Your task to perform on an android device: When is my next appointment? Image 0: 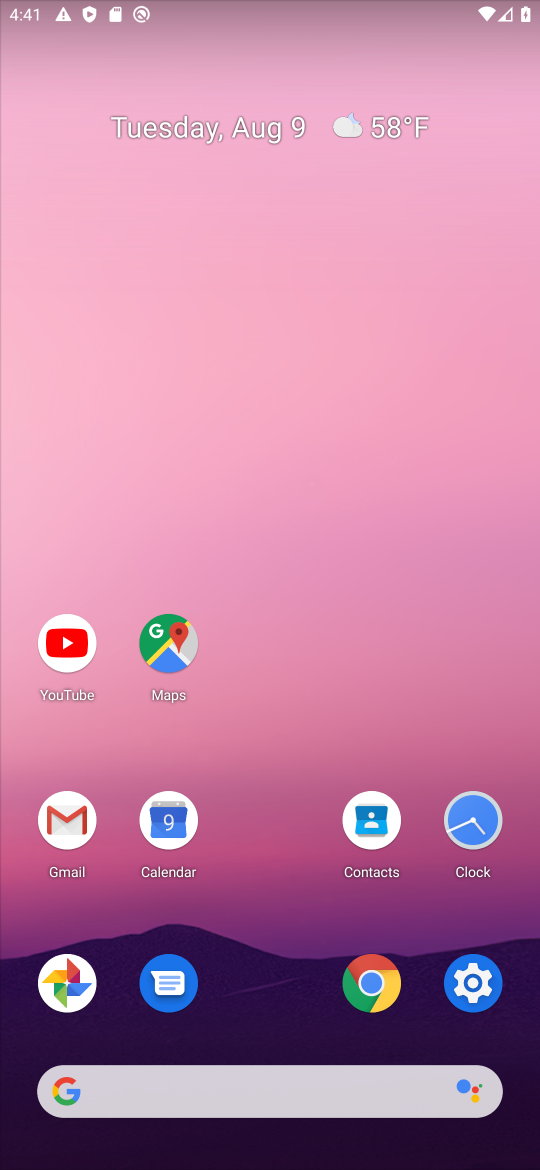
Step 0: click (160, 820)
Your task to perform on an android device: When is my next appointment? Image 1: 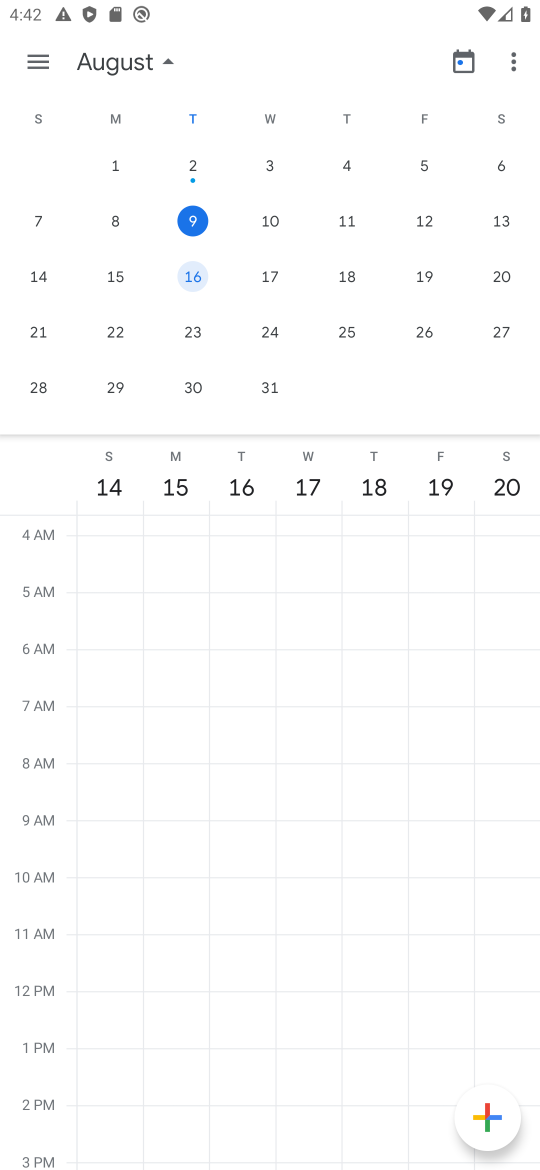
Step 1: click (187, 212)
Your task to perform on an android device: When is my next appointment? Image 2: 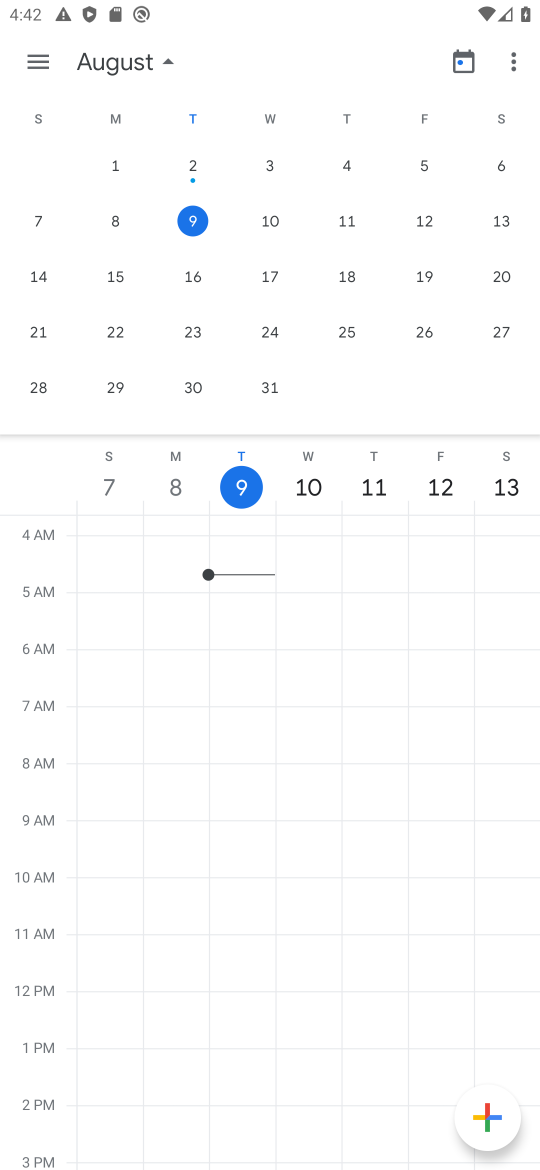
Step 2: task complete